Your task to perform on an android device: turn vacation reply on in the gmail app Image 0: 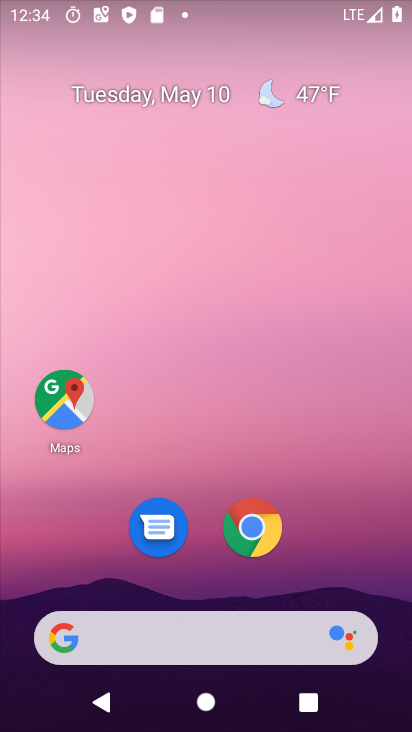
Step 0: drag from (357, 556) to (349, 186)
Your task to perform on an android device: turn vacation reply on in the gmail app Image 1: 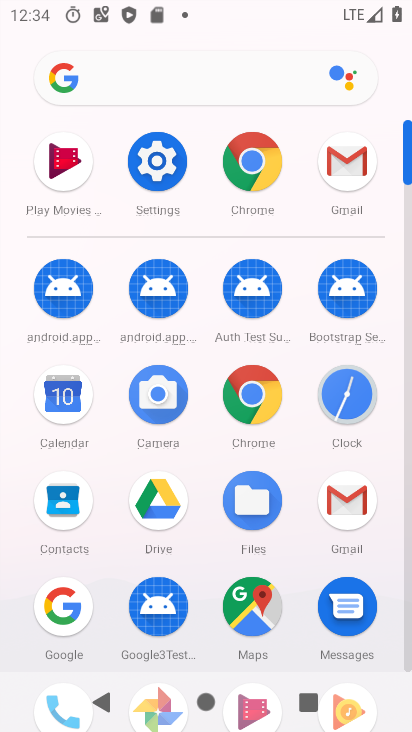
Step 1: click (346, 164)
Your task to perform on an android device: turn vacation reply on in the gmail app Image 2: 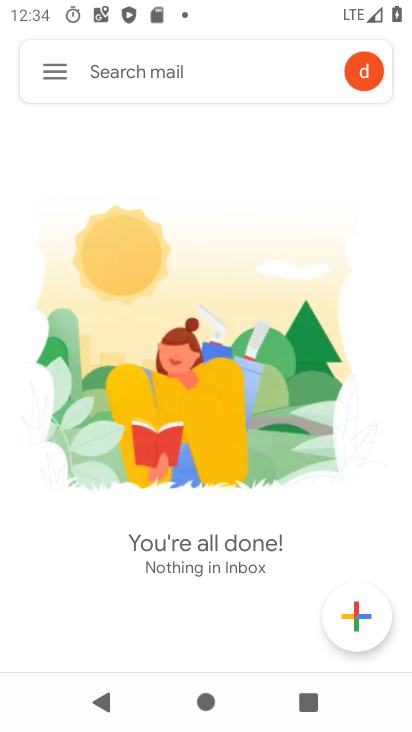
Step 2: click (40, 72)
Your task to perform on an android device: turn vacation reply on in the gmail app Image 3: 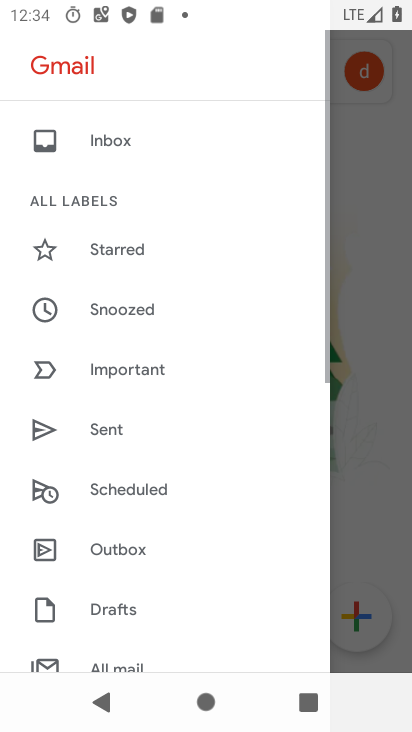
Step 3: drag from (143, 636) to (162, 147)
Your task to perform on an android device: turn vacation reply on in the gmail app Image 4: 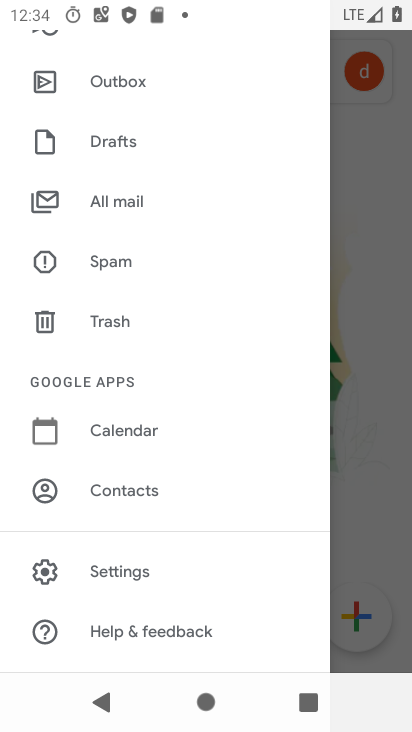
Step 4: click (162, 569)
Your task to perform on an android device: turn vacation reply on in the gmail app Image 5: 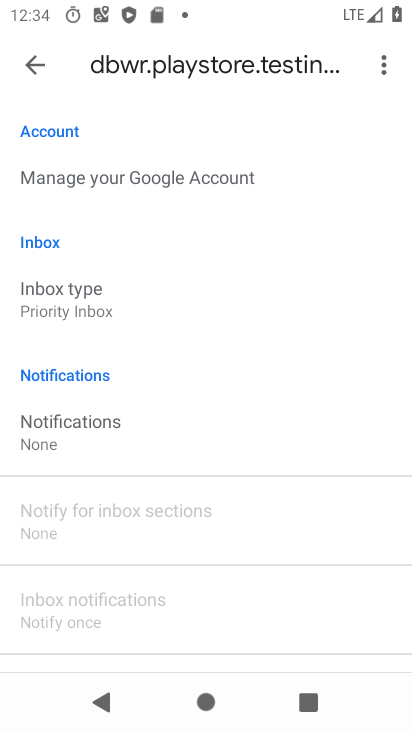
Step 5: drag from (218, 587) to (223, 310)
Your task to perform on an android device: turn vacation reply on in the gmail app Image 6: 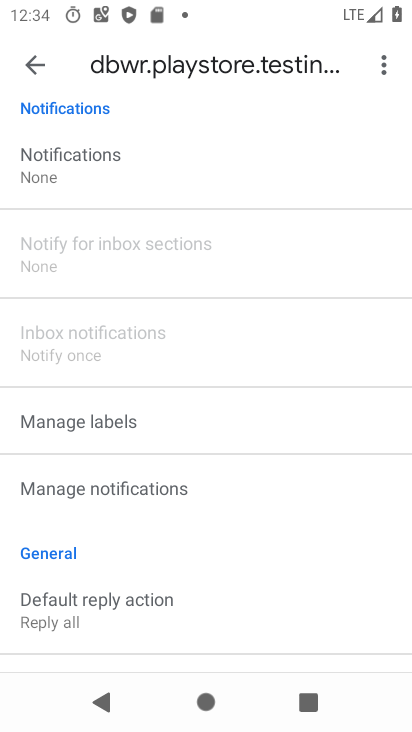
Step 6: drag from (185, 595) to (252, 267)
Your task to perform on an android device: turn vacation reply on in the gmail app Image 7: 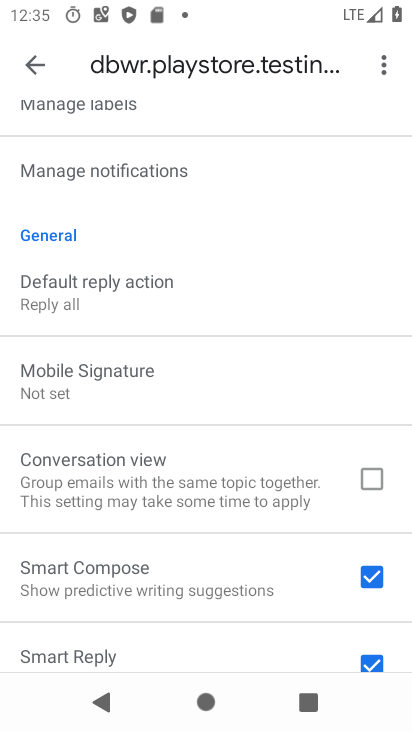
Step 7: drag from (252, 646) to (275, 369)
Your task to perform on an android device: turn vacation reply on in the gmail app Image 8: 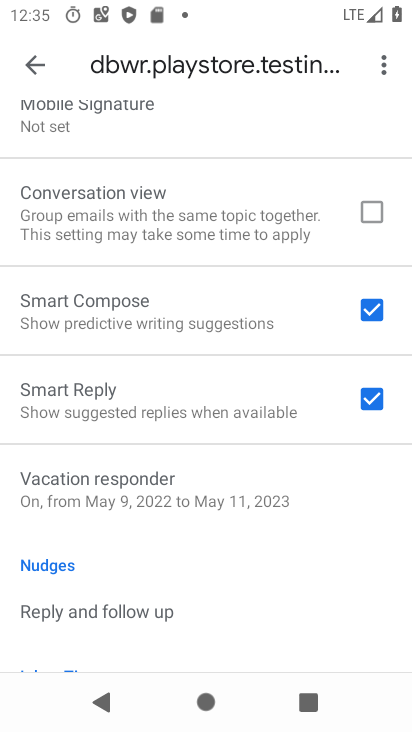
Step 8: click (237, 488)
Your task to perform on an android device: turn vacation reply on in the gmail app Image 9: 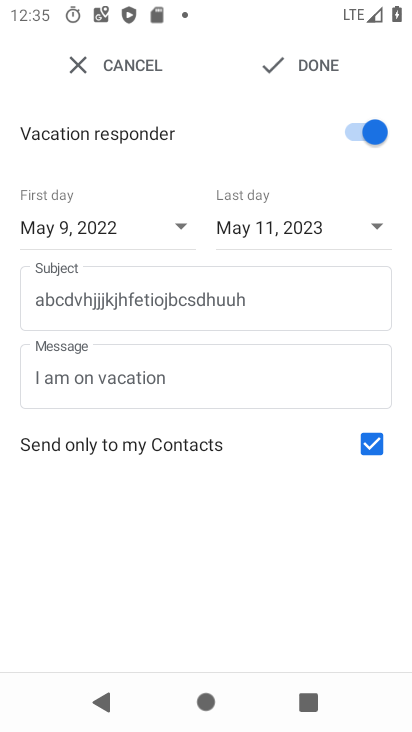
Step 9: task complete